Your task to perform on an android device: delete the emails in spam in the gmail app Image 0: 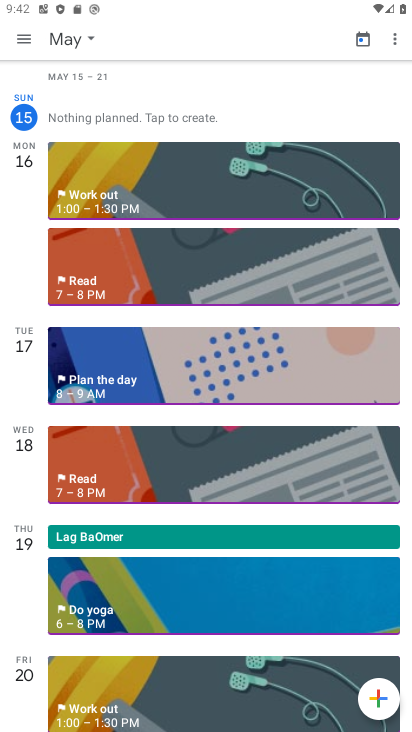
Step 0: press home button
Your task to perform on an android device: delete the emails in spam in the gmail app Image 1: 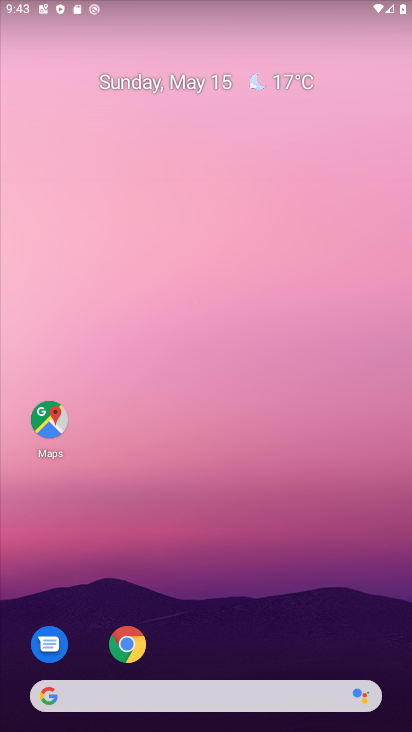
Step 1: drag from (316, 724) to (268, 276)
Your task to perform on an android device: delete the emails in spam in the gmail app Image 2: 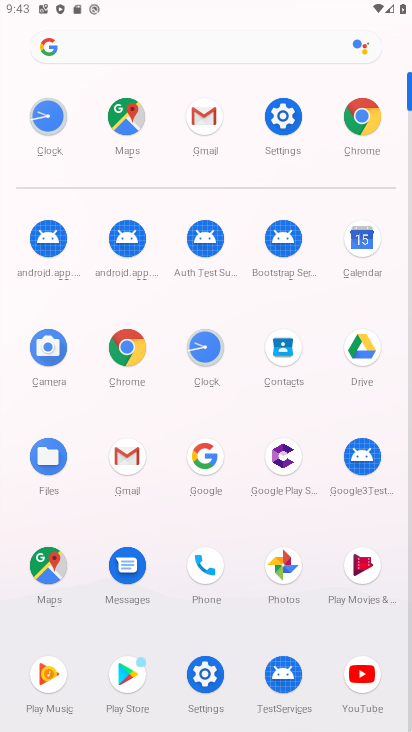
Step 2: click (203, 125)
Your task to perform on an android device: delete the emails in spam in the gmail app Image 3: 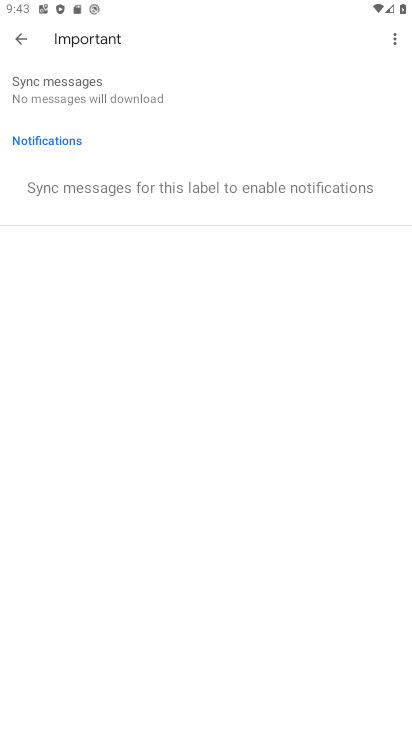
Step 3: click (10, 39)
Your task to perform on an android device: delete the emails in spam in the gmail app Image 4: 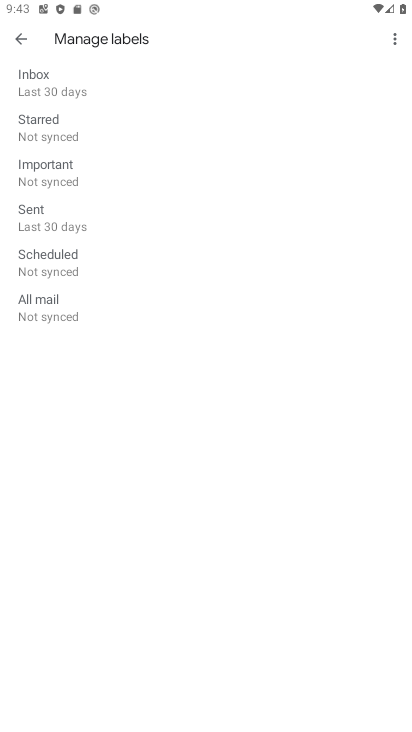
Step 4: click (16, 38)
Your task to perform on an android device: delete the emails in spam in the gmail app Image 5: 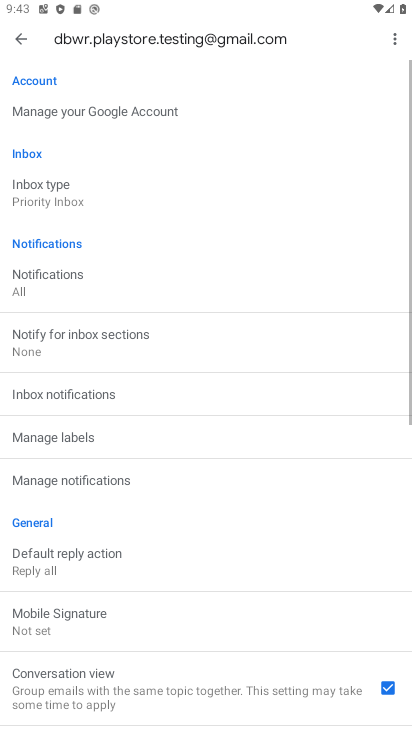
Step 5: click (24, 39)
Your task to perform on an android device: delete the emails in spam in the gmail app Image 6: 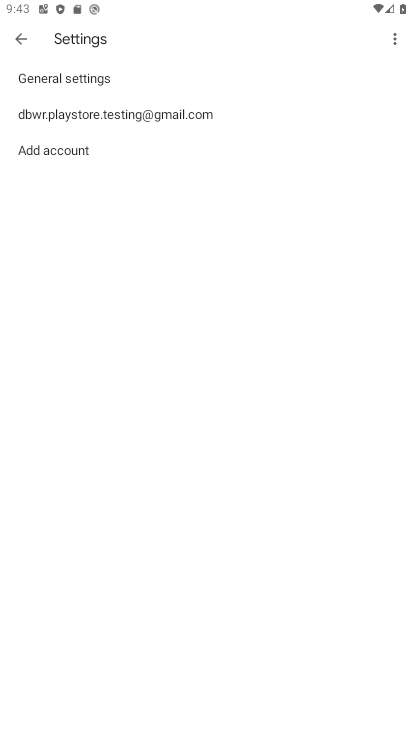
Step 6: click (27, 40)
Your task to perform on an android device: delete the emails in spam in the gmail app Image 7: 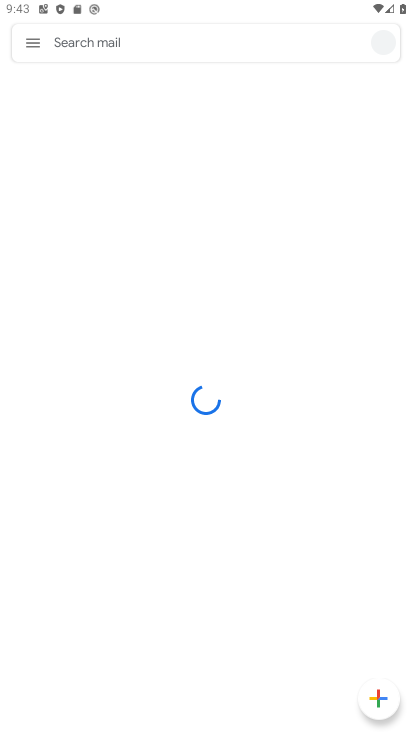
Step 7: click (38, 39)
Your task to perform on an android device: delete the emails in spam in the gmail app Image 8: 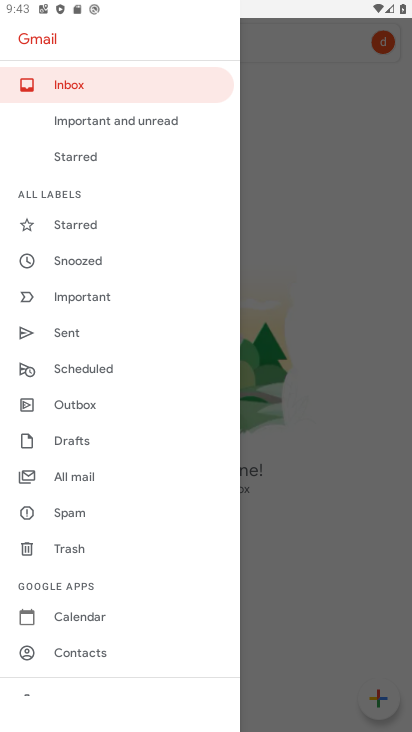
Step 8: click (83, 512)
Your task to perform on an android device: delete the emails in spam in the gmail app Image 9: 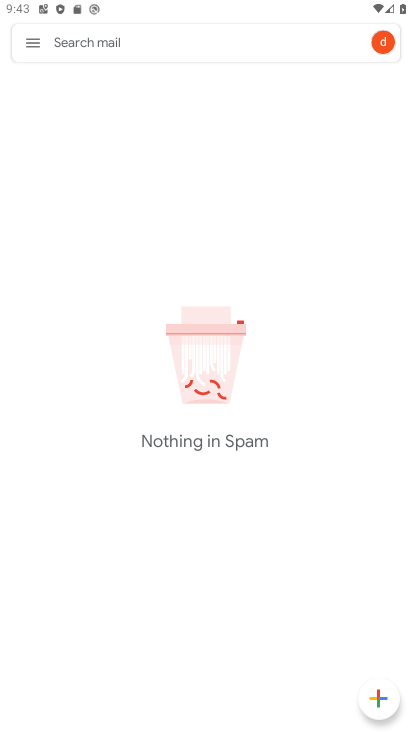
Step 9: task complete